Your task to perform on an android device: Turn on the flashlight Image 0: 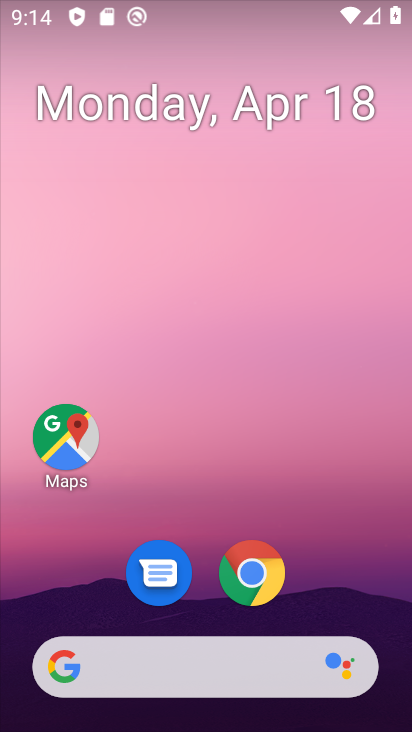
Step 0: drag from (227, 21) to (224, 410)
Your task to perform on an android device: Turn on the flashlight Image 1: 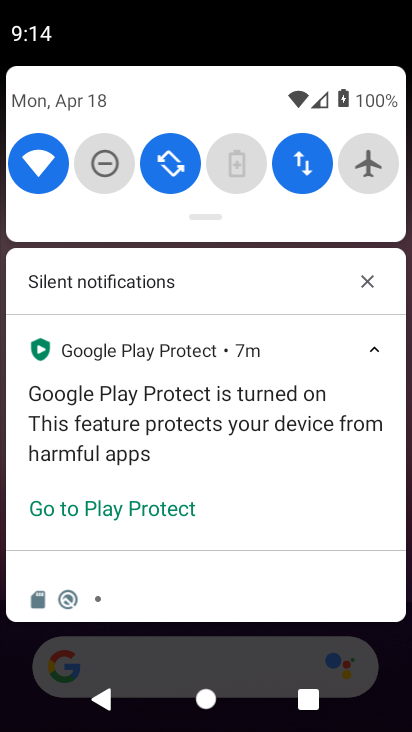
Step 1: drag from (200, 210) to (202, 506)
Your task to perform on an android device: Turn on the flashlight Image 2: 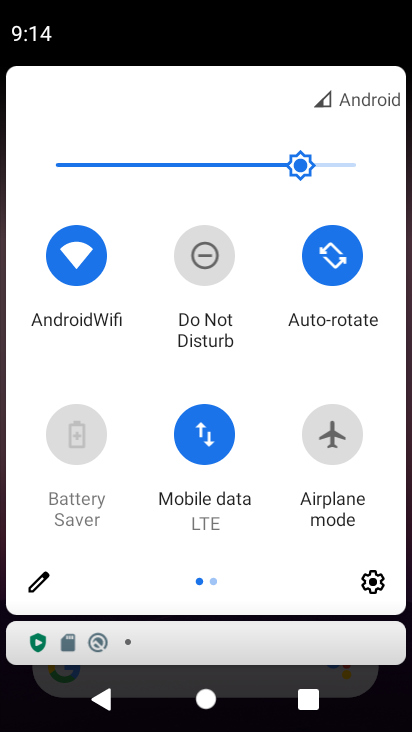
Step 2: click (29, 575)
Your task to perform on an android device: Turn on the flashlight Image 3: 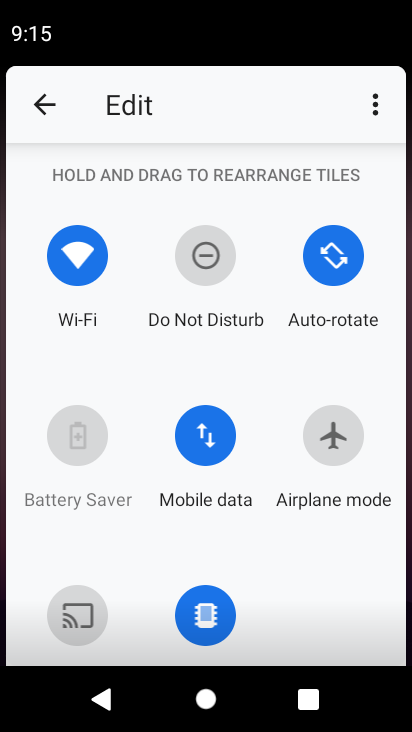
Step 3: task complete